Your task to perform on an android device: find snoozed emails in the gmail app Image 0: 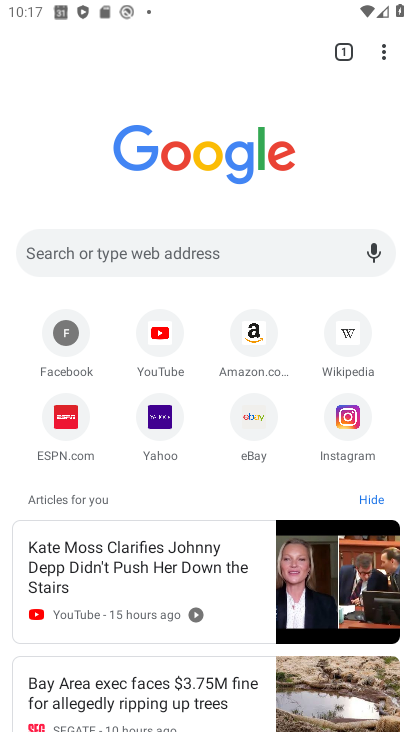
Step 0: press back button
Your task to perform on an android device: find snoozed emails in the gmail app Image 1: 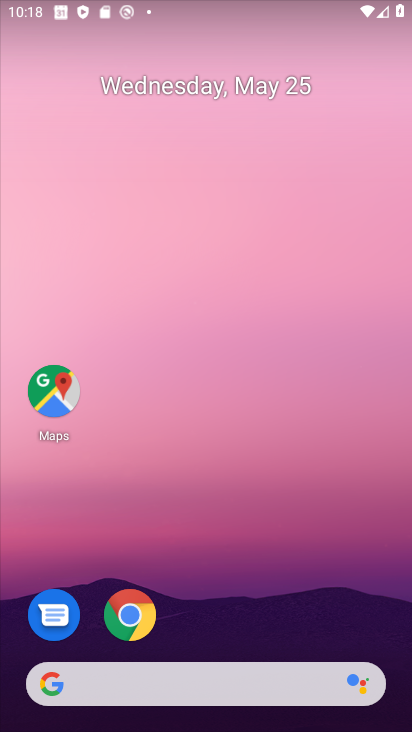
Step 1: drag from (213, 642) to (138, 13)
Your task to perform on an android device: find snoozed emails in the gmail app Image 2: 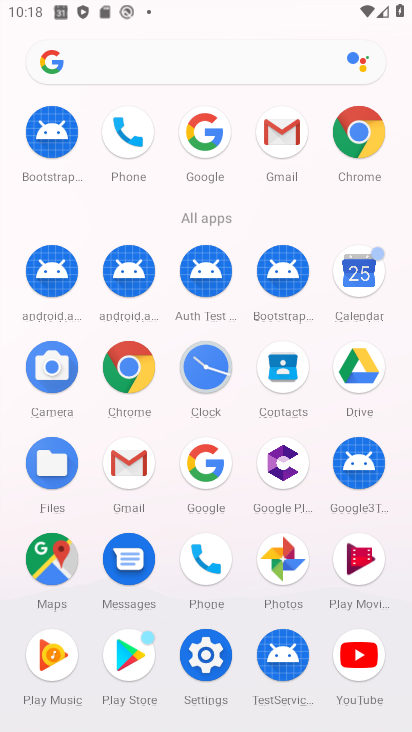
Step 2: click (136, 473)
Your task to perform on an android device: find snoozed emails in the gmail app Image 3: 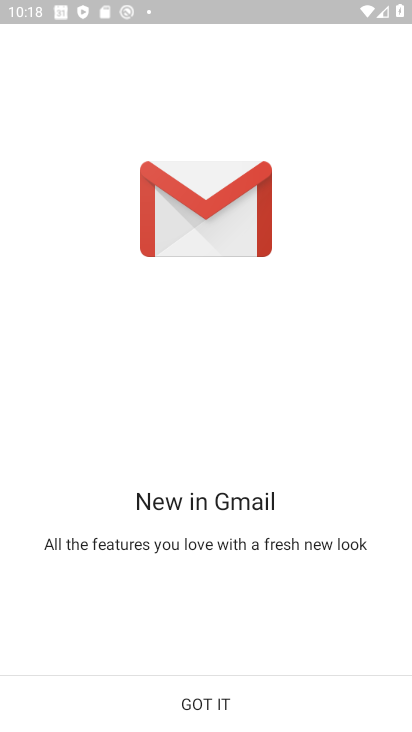
Step 3: click (194, 713)
Your task to perform on an android device: find snoozed emails in the gmail app Image 4: 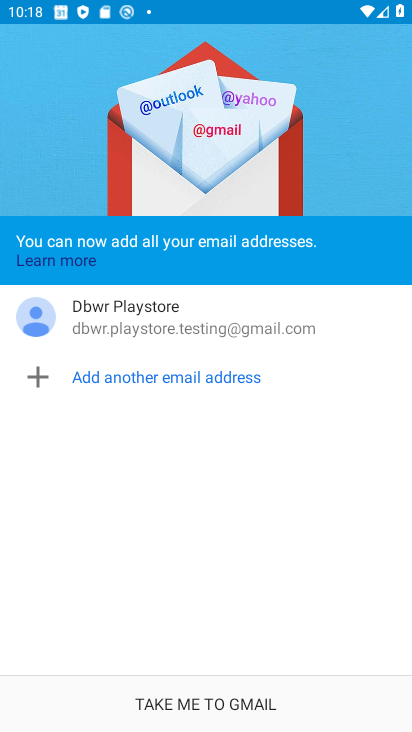
Step 4: click (194, 713)
Your task to perform on an android device: find snoozed emails in the gmail app Image 5: 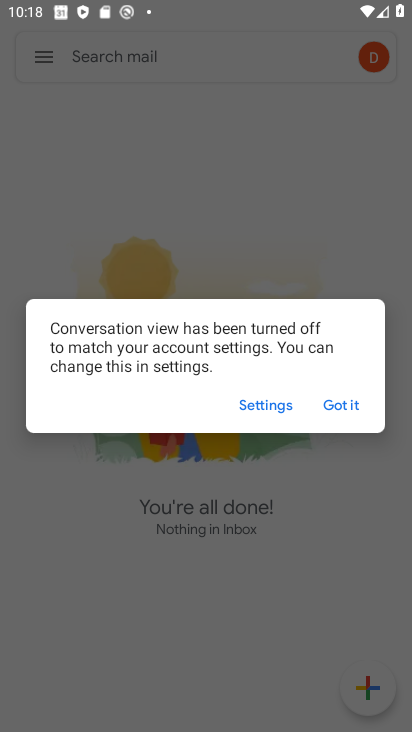
Step 5: click (340, 393)
Your task to perform on an android device: find snoozed emails in the gmail app Image 6: 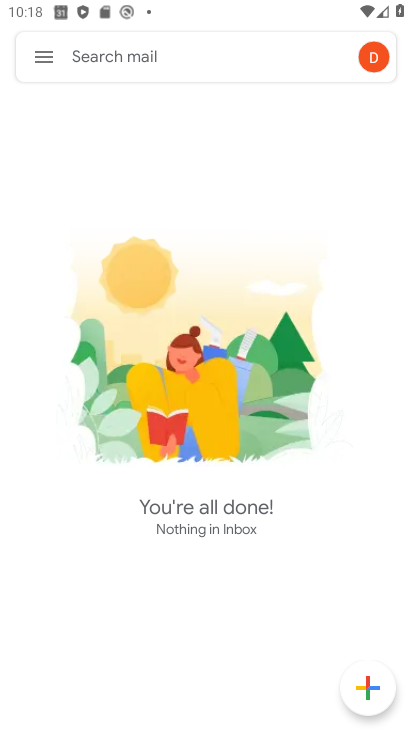
Step 6: task complete